Your task to perform on an android device: allow notifications from all sites in the chrome app Image 0: 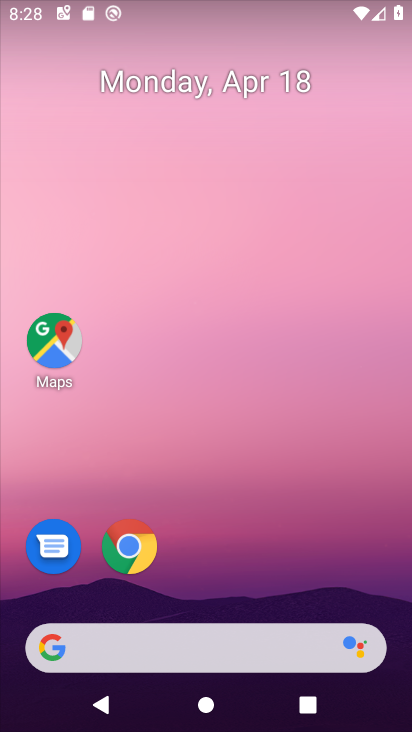
Step 0: click (243, 189)
Your task to perform on an android device: allow notifications from all sites in the chrome app Image 1: 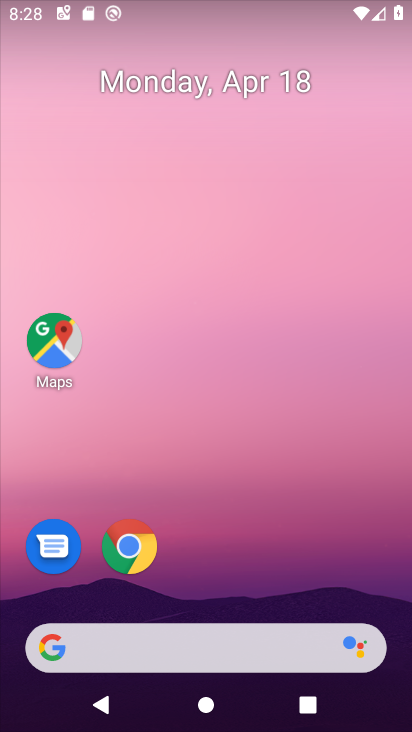
Step 1: drag from (366, 576) to (265, 107)
Your task to perform on an android device: allow notifications from all sites in the chrome app Image 2: 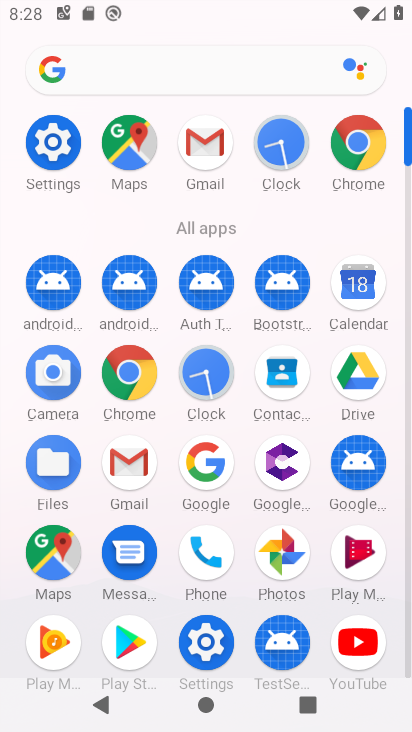
Step 2: click (365, 153)
Your task to perform on an android device: allow notifications from all sites in the chrome app Image 3: 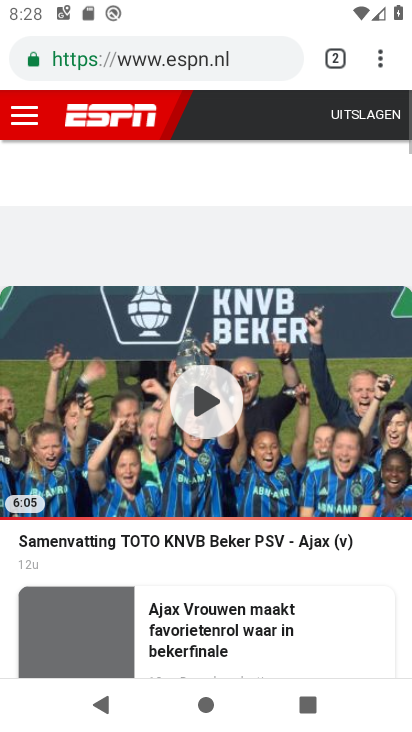
Step 3: click (374, 58)
Your task to perform on an android device: allow notifications from all sites in the chrome app Image 4: 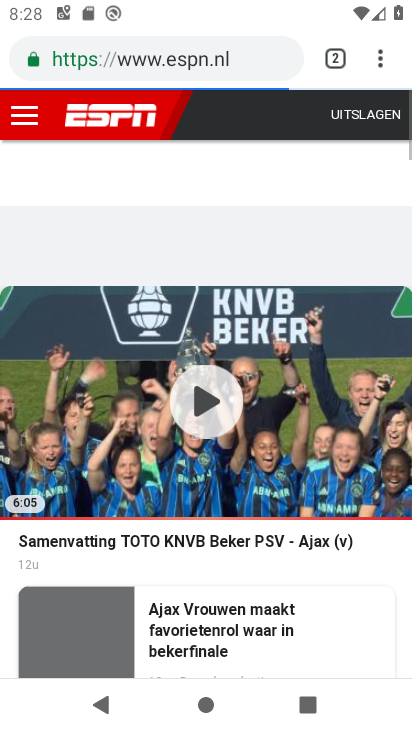
Step 4: drag from (374, 58) to (269, 579)
Your task to perform on an android device: allow notifications from all sites in the chrome app Image 5: 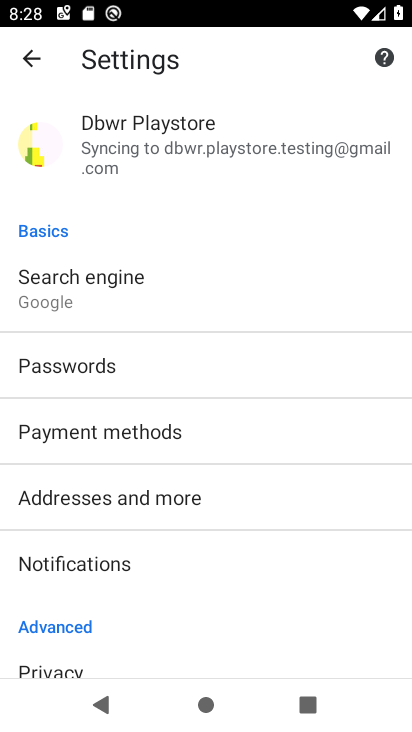
Step 5: drag from (256, 652) to (206, 84)
Your task to perform on an android device: allow notifications from all sites in the chrome app Image 6: 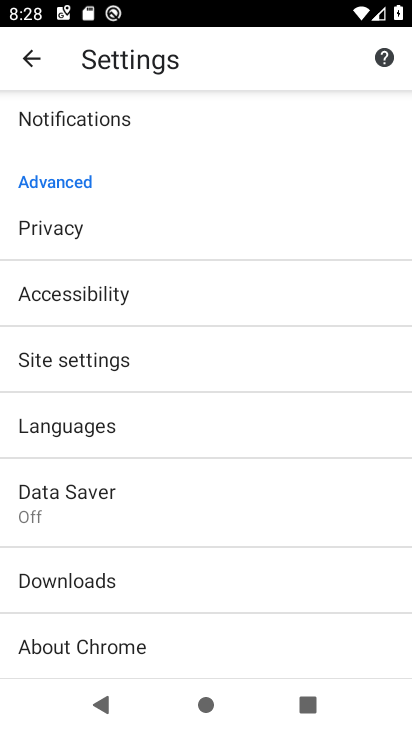
Step 6: click (188, 357)
Your task to perform on an android device: allow notifications from all sites in the chrome app Image 7: 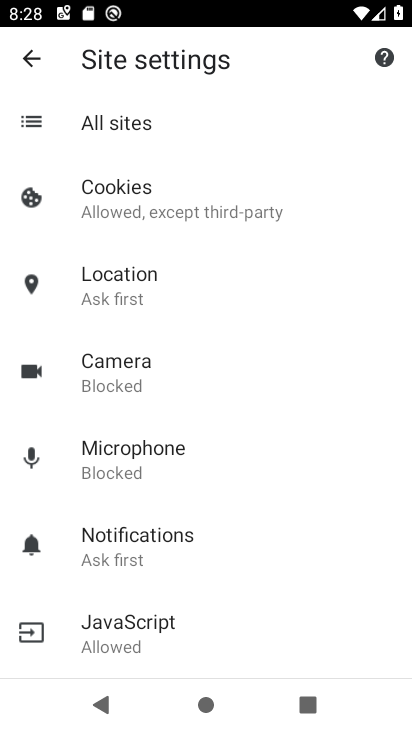
Step 7: click (227, 547)
Your task to perform on an android device: allow notifications from all sites in the chrome app Image 8: 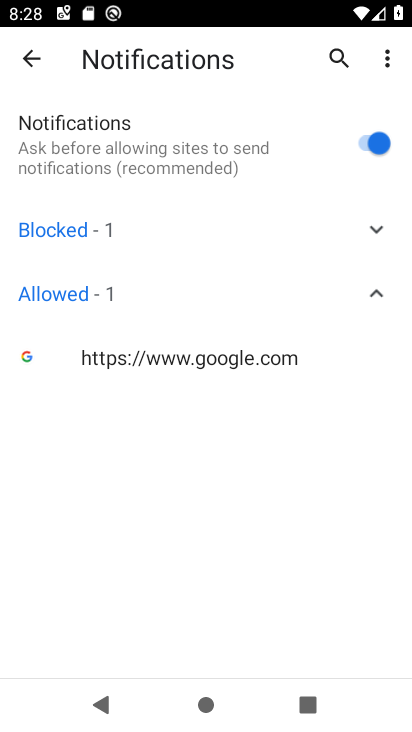
Step 8: task complete